Your task to perform on an android device: Go to calendar. Show me events next week Image 0: 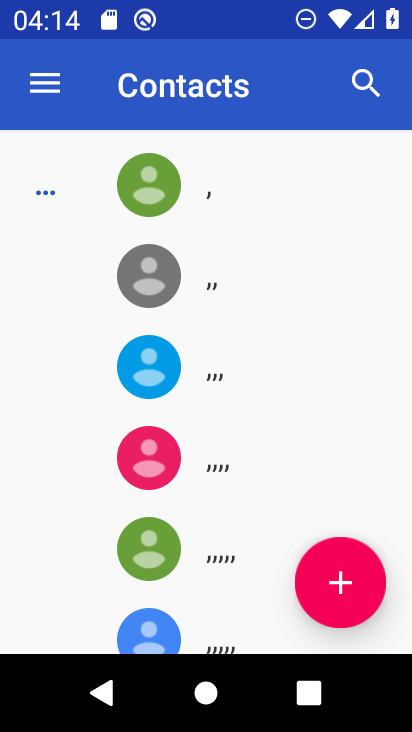
Step 0: press back button
Your task to perform on an android device: Go to calendar. Show me events next week Image 1: 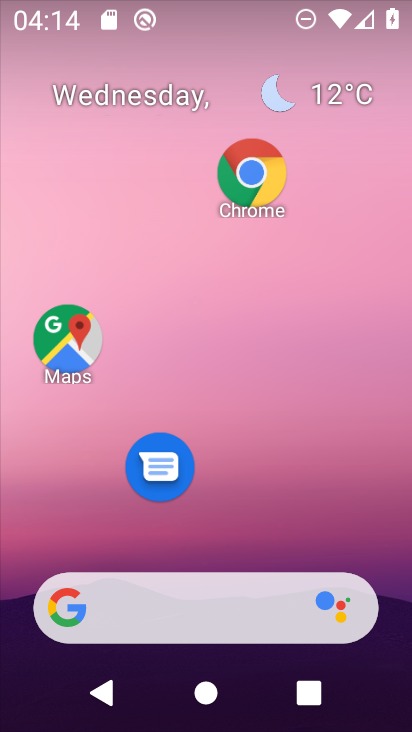
Step 1: drag from (291, 488) to (288, 155)
Your task to perform on an android device: Go to calendar. Show me events next week Image 2: 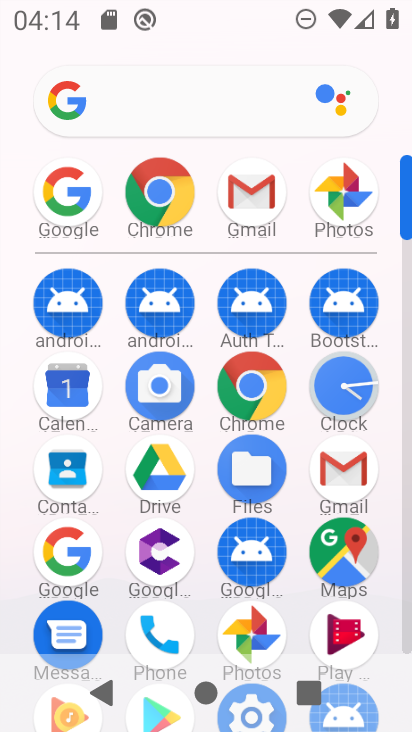
Step 2: click (59, 388)
Your task to perform on an android device: Go to calendar. Show me events next week Image 3: 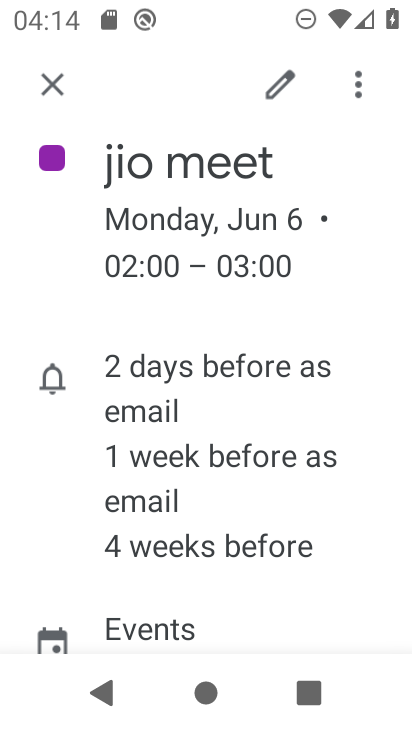
Step 3: click (62, 74)
Your task to perform on an android device: Go to calendar. Show me events next week Image 4: 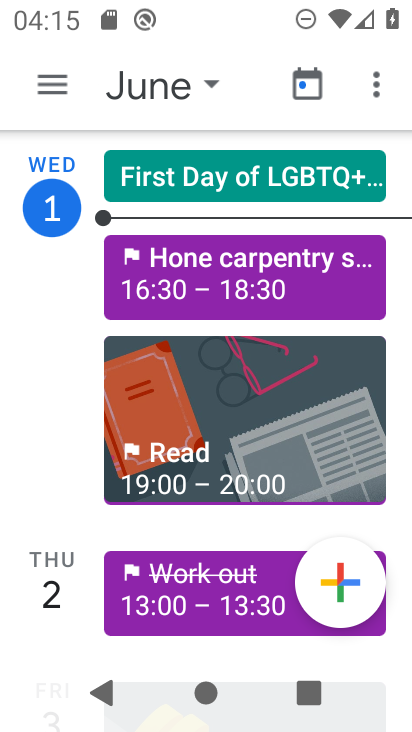
Step 4: click (146, 95)
Your task to perform on an android device: Go to calendar. Show me events next week Image 5: 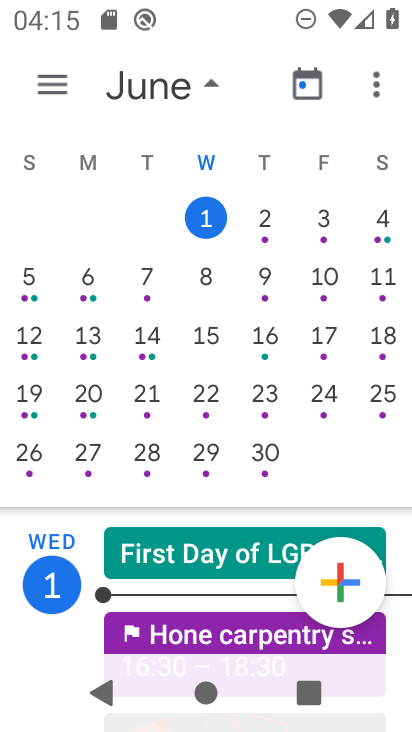
Step 5: click (85, 271)
Your task to perform on an android device: Go to calendar. Show me events next week Image 6: 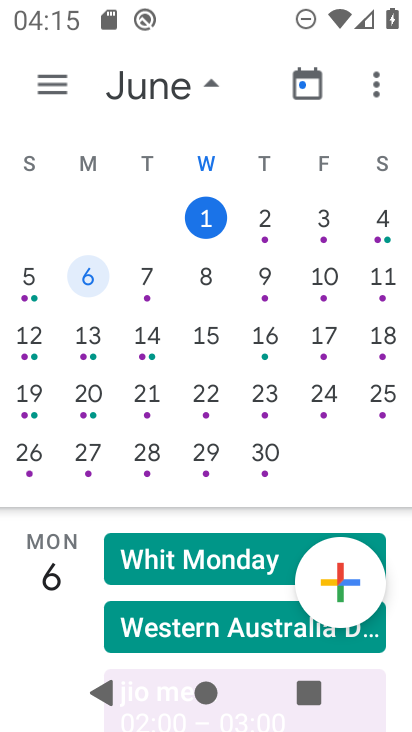
Step 6: drag from (170, 610) to (268, 34)
Your task to perform on an android device: Go to calendar. Show me events next week Image 7: 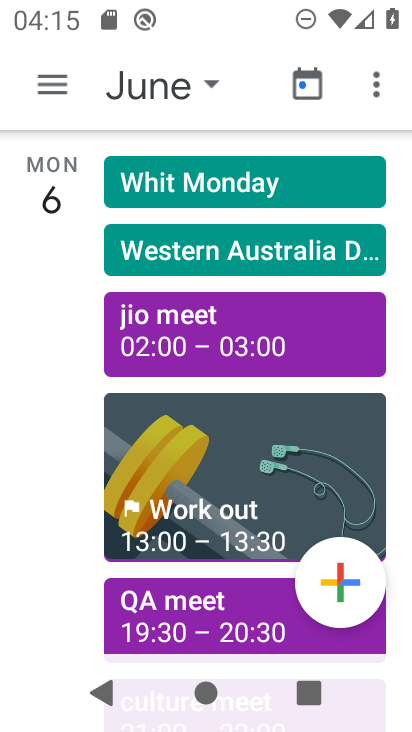
Step 7: click (186, 186)
Your task to perform on an android device: Go to calendar. Show me events next week Image 8: 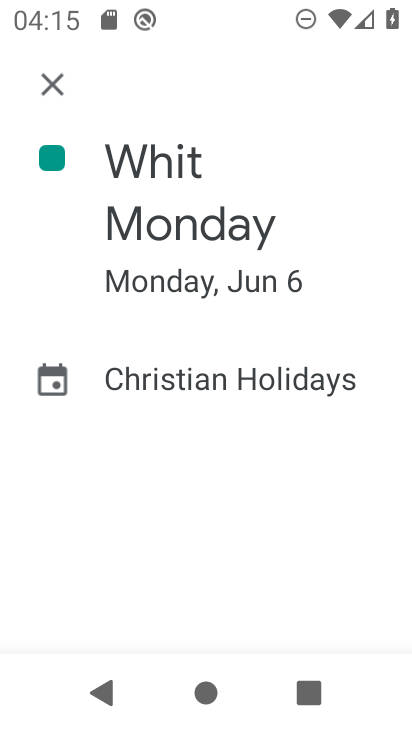
Step 8: task complete